Your task to perform on an android device: turn notification dots off Image 0: 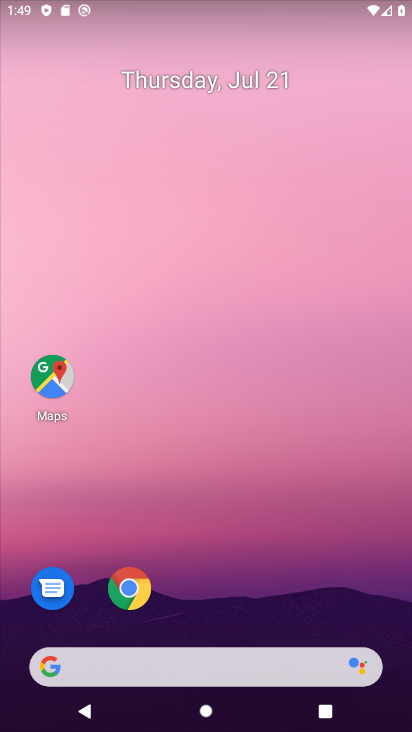
Step 0: drag from (194, 598) to (227, 211)
Your task to perform on an android device: turn notification dots off Image 1: 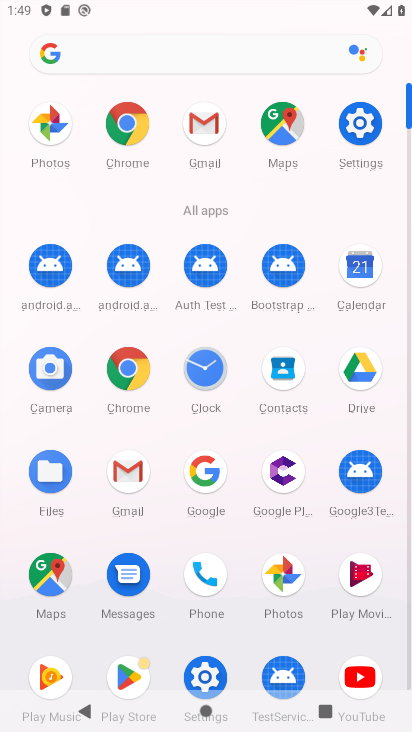
Step 1: click (196, 666)
Your task to perform on an android device: turn notification dots off Image 2: 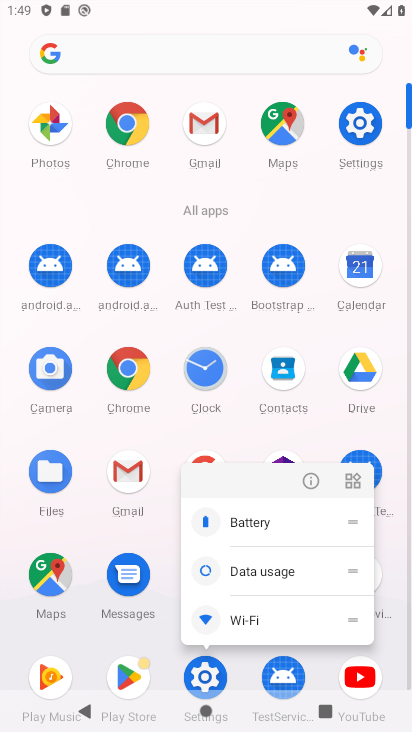
Step 2: click (310, 483)
Your task to perform on an android device: turn notification dots off Image 3: 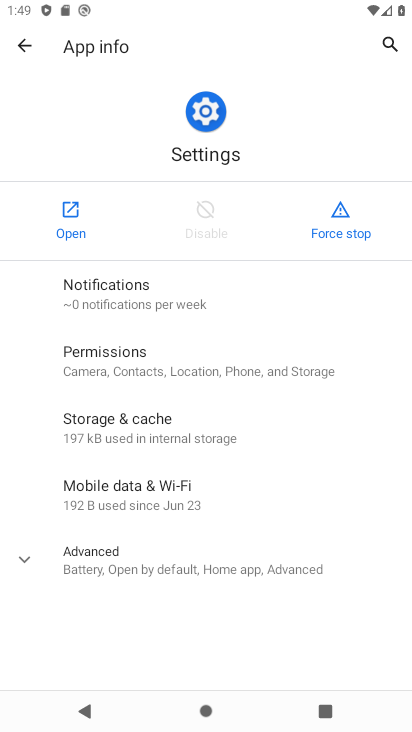
Step 3: click (74, 212)
Your task to perform on an android device: turn notification dots off Image 4: 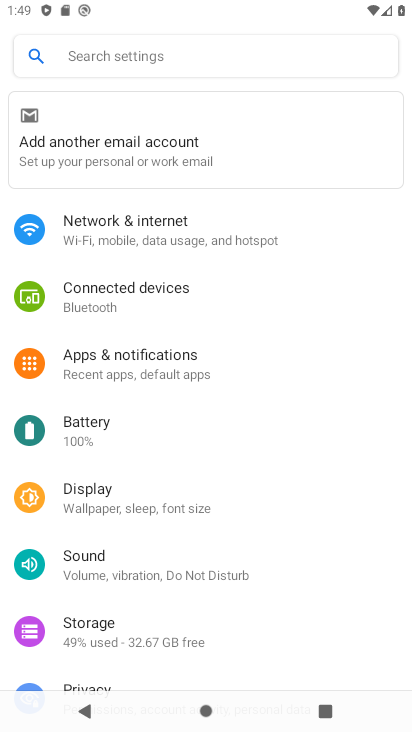
Step 4: click (188, 363)
Your task to perform on an android device: turn notification dots off Image 5: 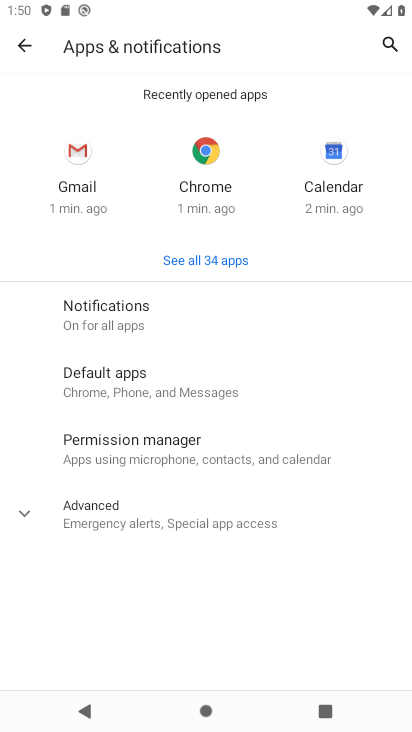
Step 5: click (116, 315)
Your task to perform on an android device: turn notification dots off Image 6: 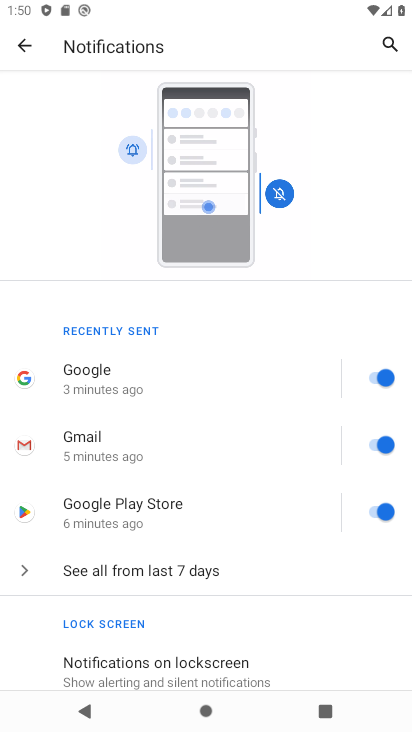
Step 6: drag from (149, 621) to (210, 214)
Your task to perform on an android device: turn notification dots off Image 7: 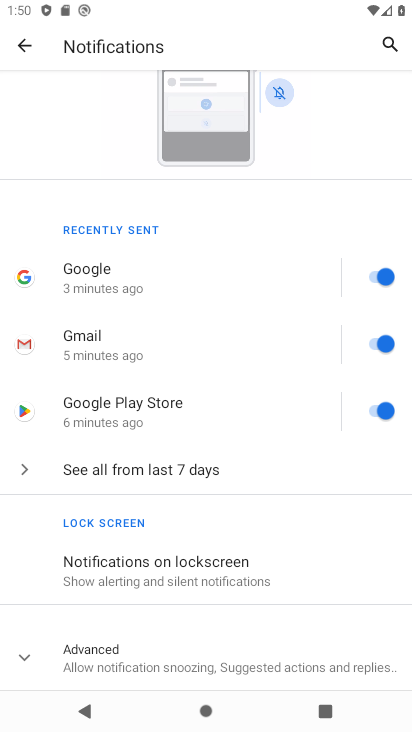
Step 7: click (112, 663)
Your task to perform on an android device: turn notification dots off Image 8: 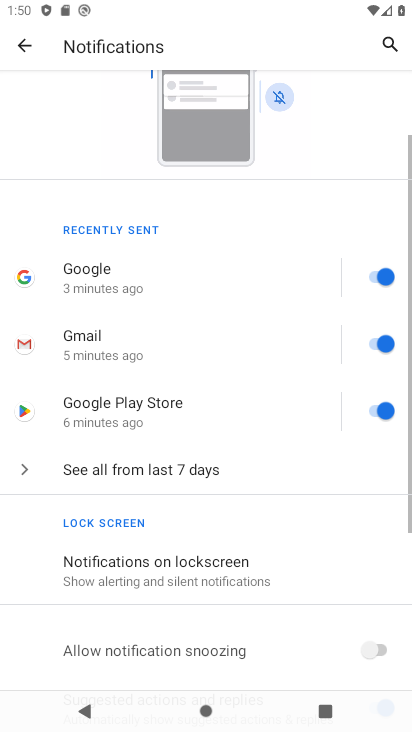
Step 8: drag from (180, 634) to (286, 192)
Your task to perform on an android device: turn notification dots off Image 9: 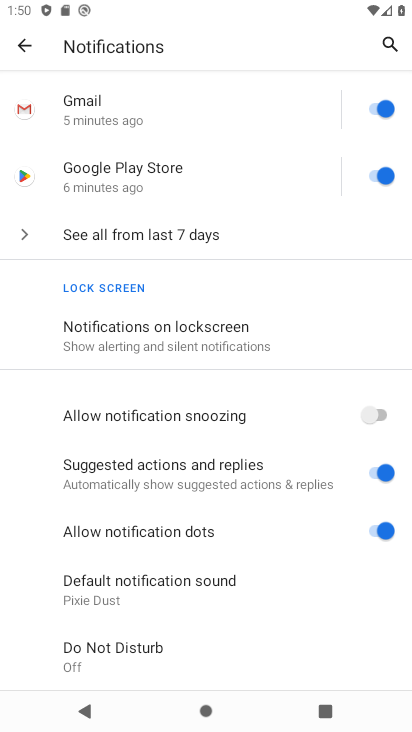
Step 9: click (370, 531)
Your task to perform on an android device: turn notification dots off Image 10: 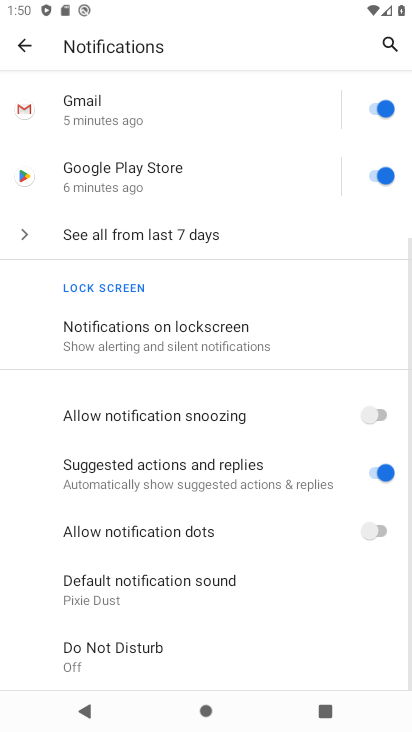
Step 10: task complete